Your task to perform on an android device: Open battery settings Image 0: 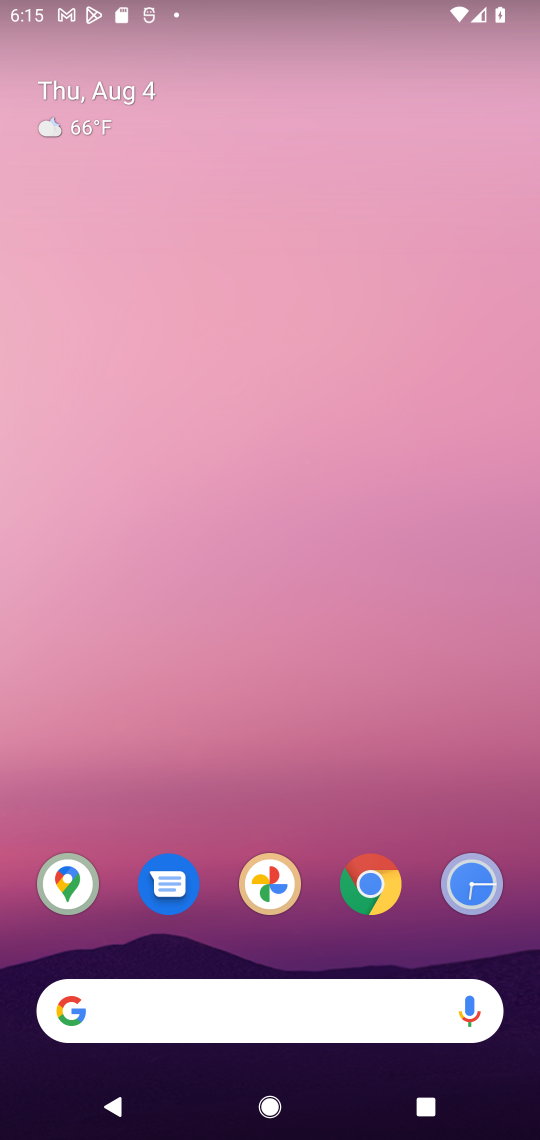
Step 0: drag from (333, 952) to (342, 212)
Your task to perform on an android device: Open battery settings Image 1: 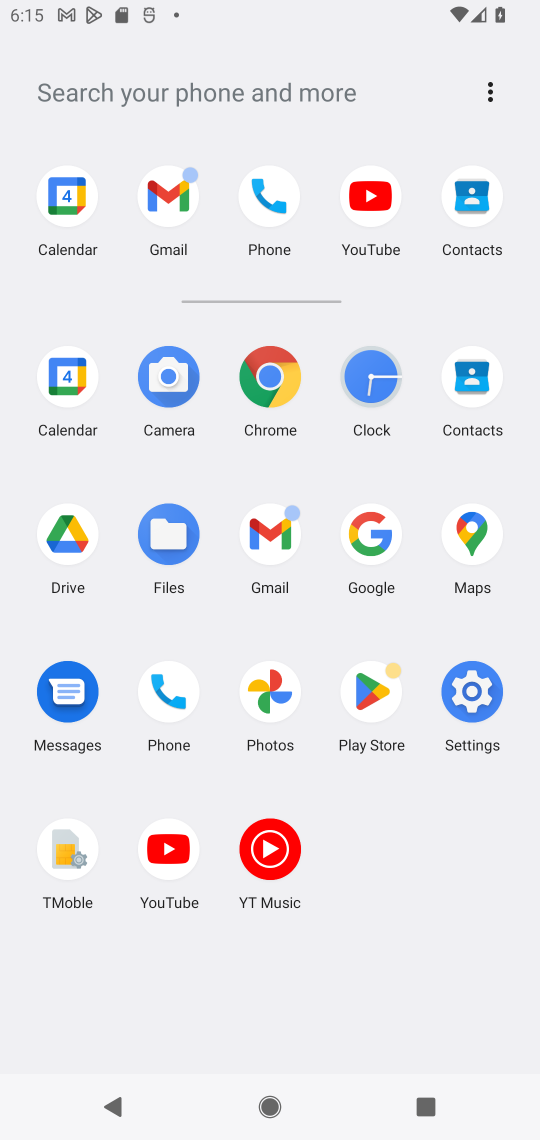
Step 1: click (490, 679)
Your task to perform on an android device: Open battery settings Image 2: 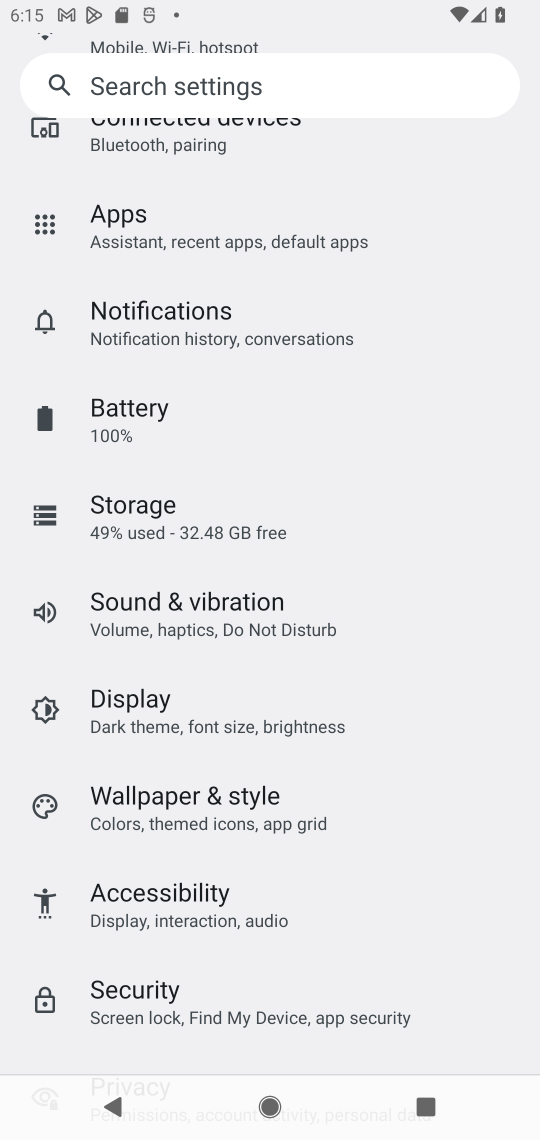
Step 2: click (209, 413)
Your task to perform on an android device: Open battery settings Image 3: 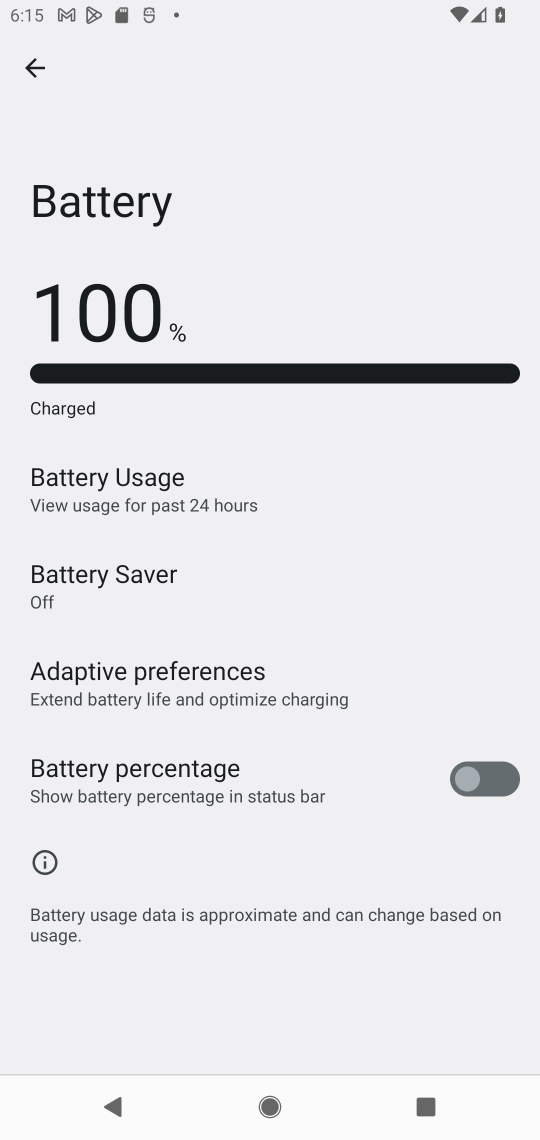
Step 3: task complete